Your task to perform on an android device: What's the weather? Image 0: 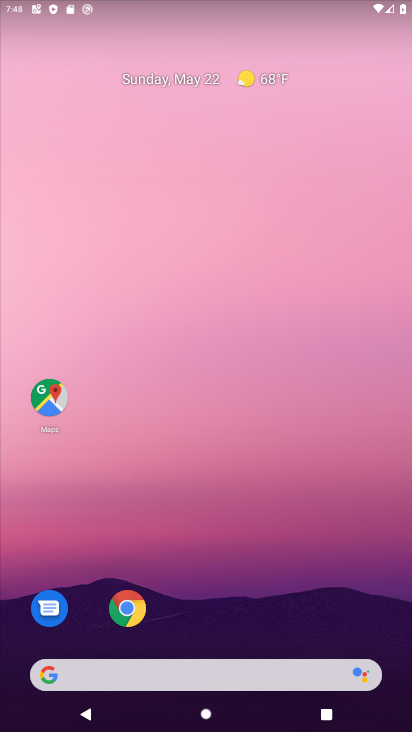
Step 0: click (246, 78)
Your task to perform on an android device: What's the weather? Image 1: 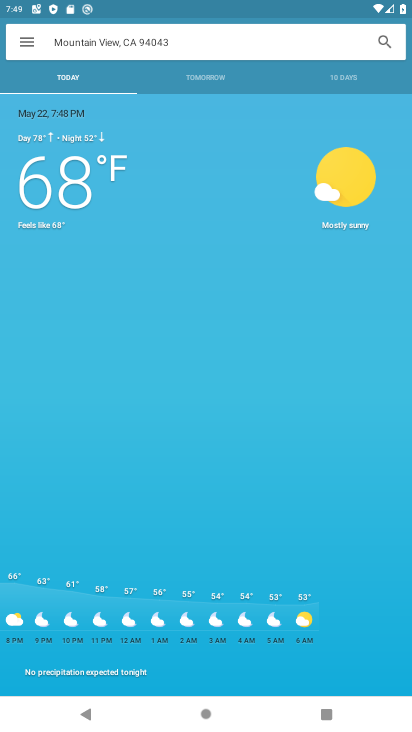
Step 1: task complete